Your task to perform on an android device: Open Android settings Image 0: 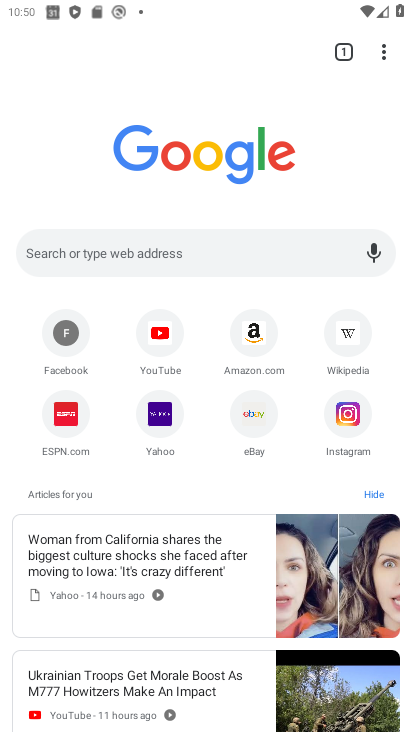
Step 0: drag from (230, 604) to (172, 167)
Your task to perform on an android device: Open Android settings Image 1: 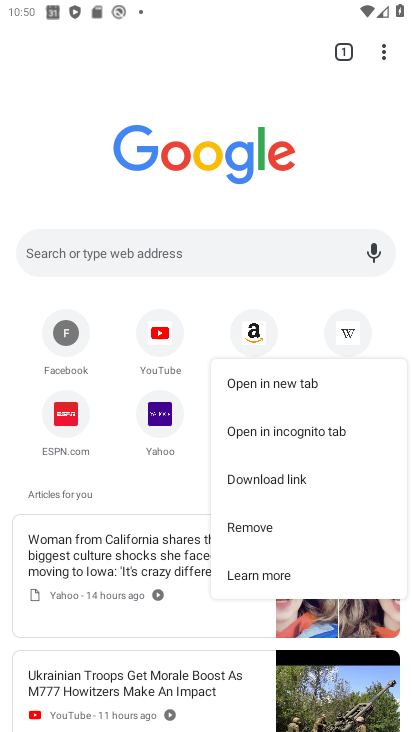
Step 1: press back button
Your task to perform on an android device: Open Android settings Image 2: 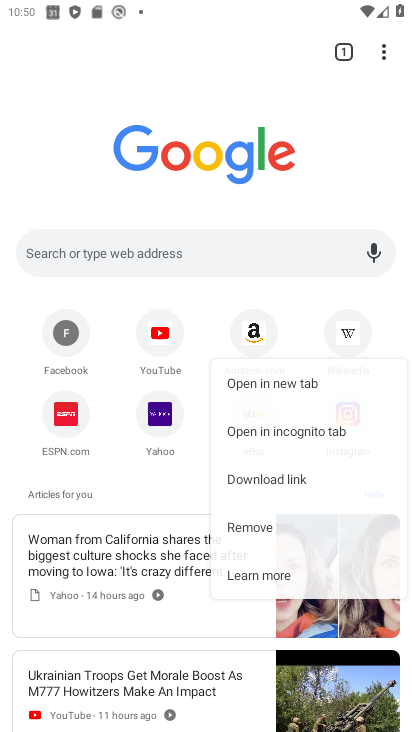
Step 2: press back button
Your task to perform on an android device: Open Android settings Image 3: 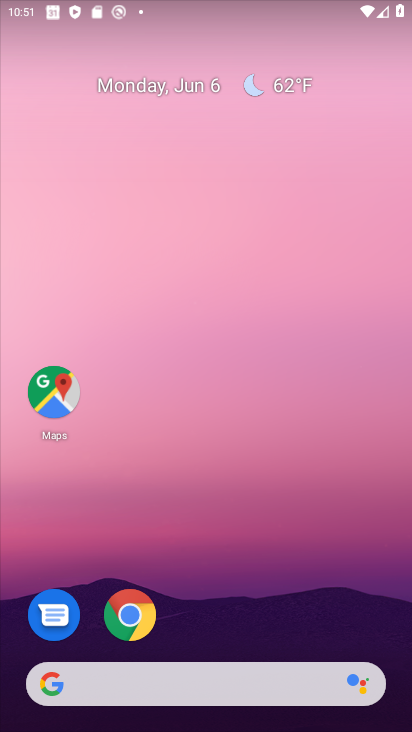
Step 3: drag from (221, 556) to (118, 48)
Your task to perform on an android device: Open Android settings Image 4: 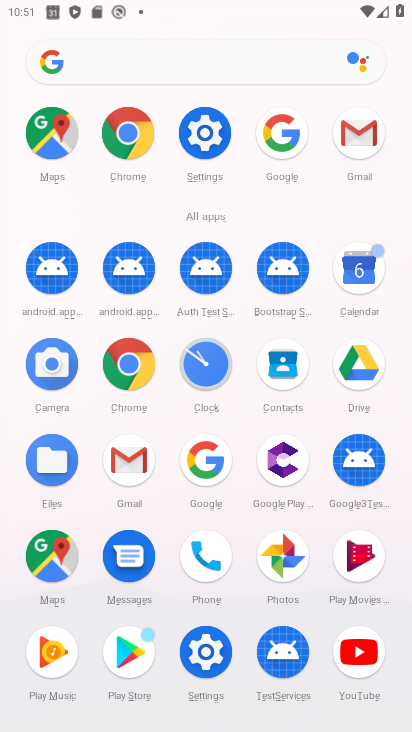
Step 4: click (207, 152)
Your task to perform on an android device: Open Android settings Image 5: 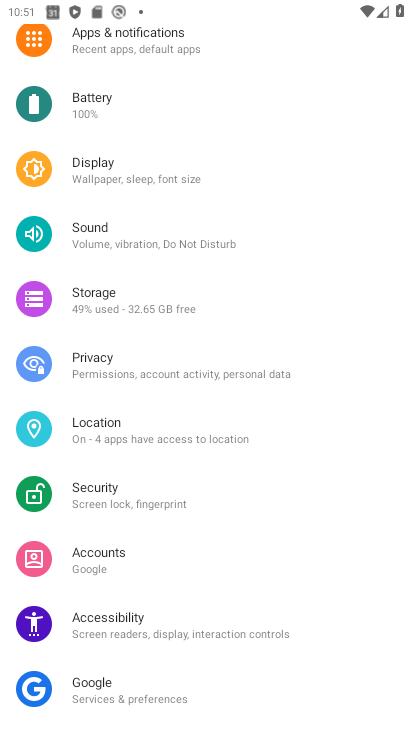
Step 5: drag from (205, 569) to (151, 214)
Your task to perform on an android device: Open Android settings Image 6: 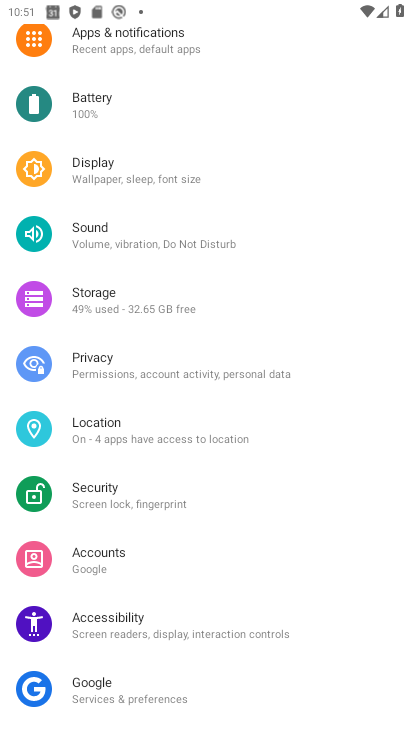
Step 6: drag from (226, 482) to (210, 309)
Your task to perform on an android device: Open Android settings Image 7: 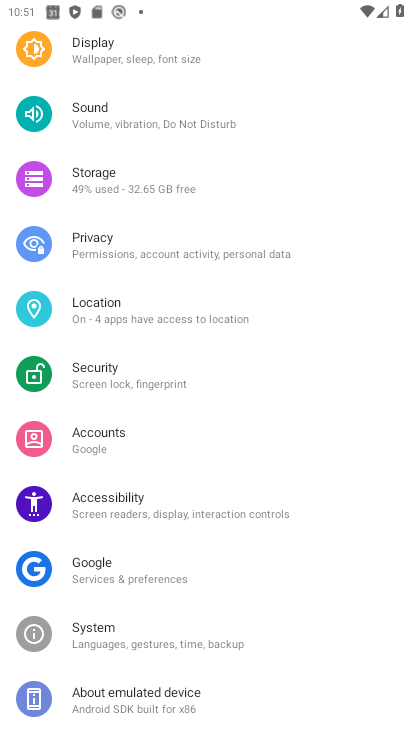
Step 7: drag from (58, 665) to (38, 316)
Your task to perform on an android device: Open Android settings Image 8: 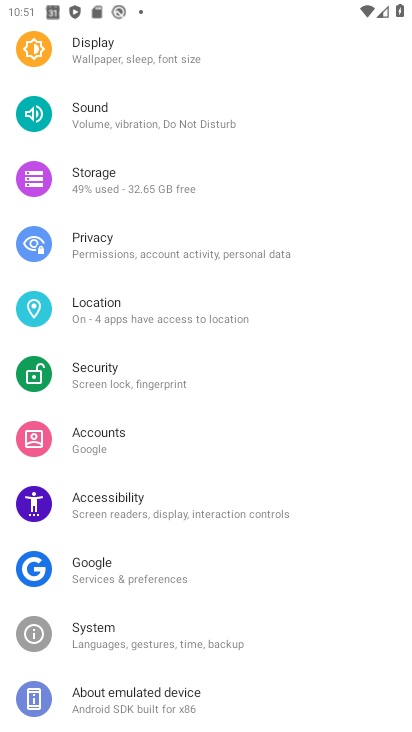
Step 8: click (136, 692)
Your task to perform on an android device: Open Android settings Image 9: 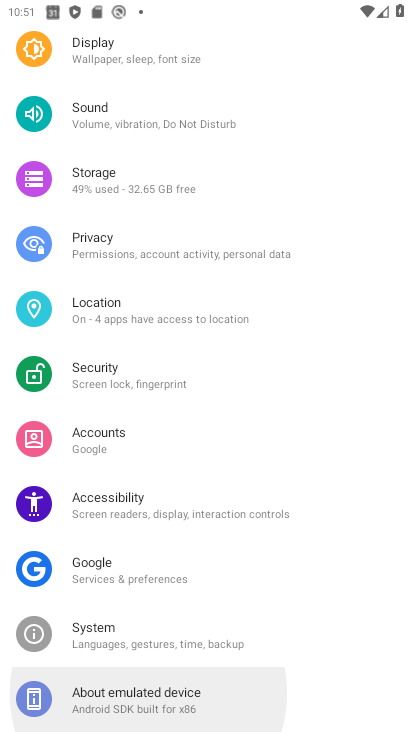
Step 9: click (136, 692)
Your task to perform on an android device: Open Android settings Image 10: 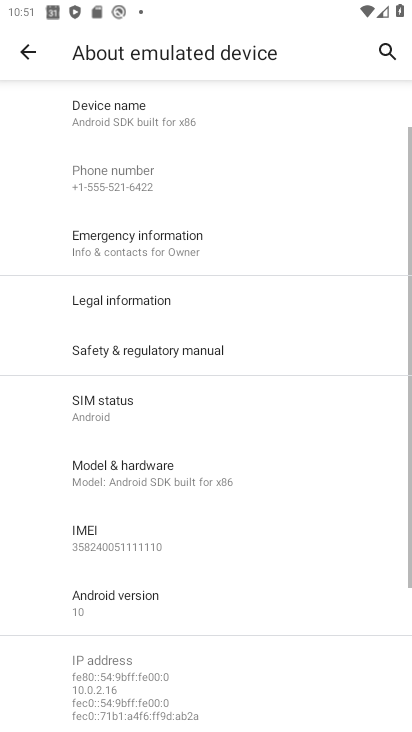
Step 10: task complete